Your task to perform on an android device: turn off notifications settings in the gmail app Image 0: 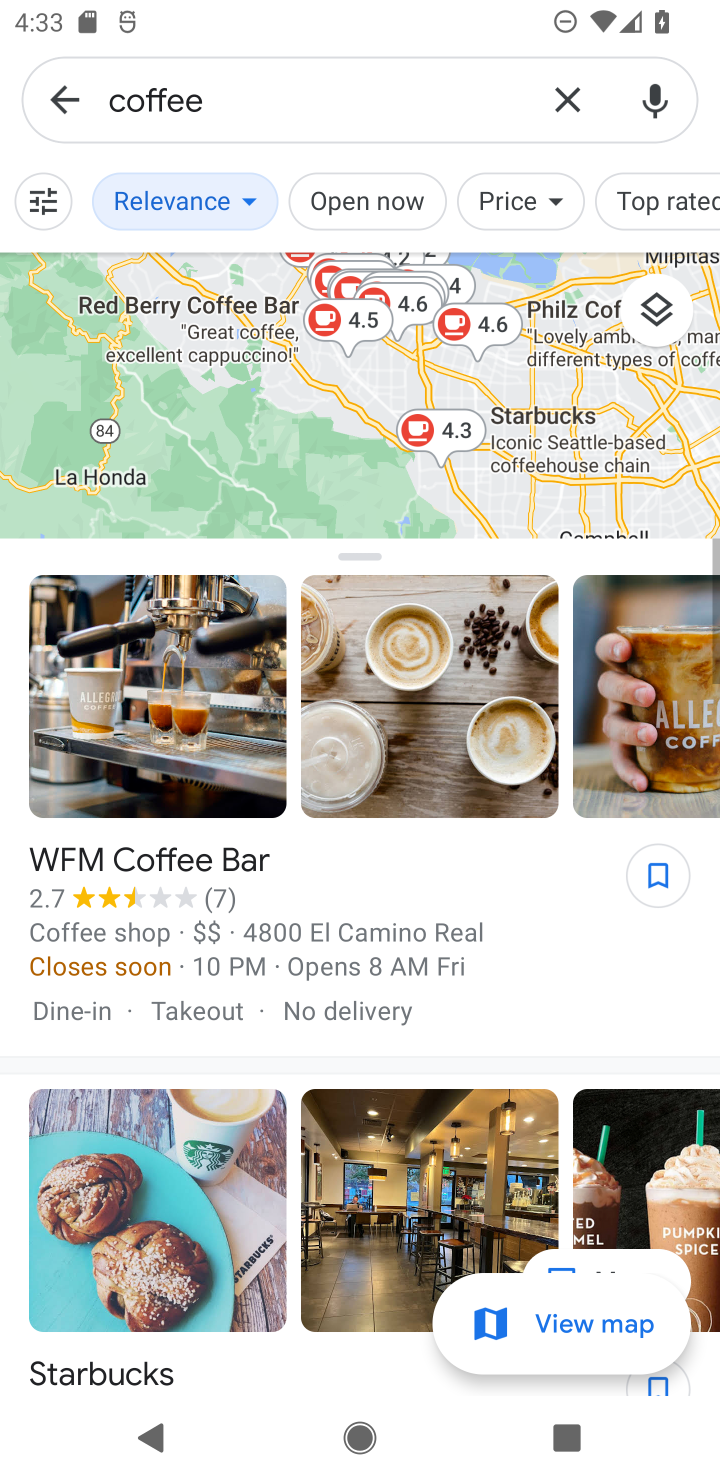
Step 0: press home button
Your task to perform on an android device: turn off notifications settings in the gmail app Image 1: 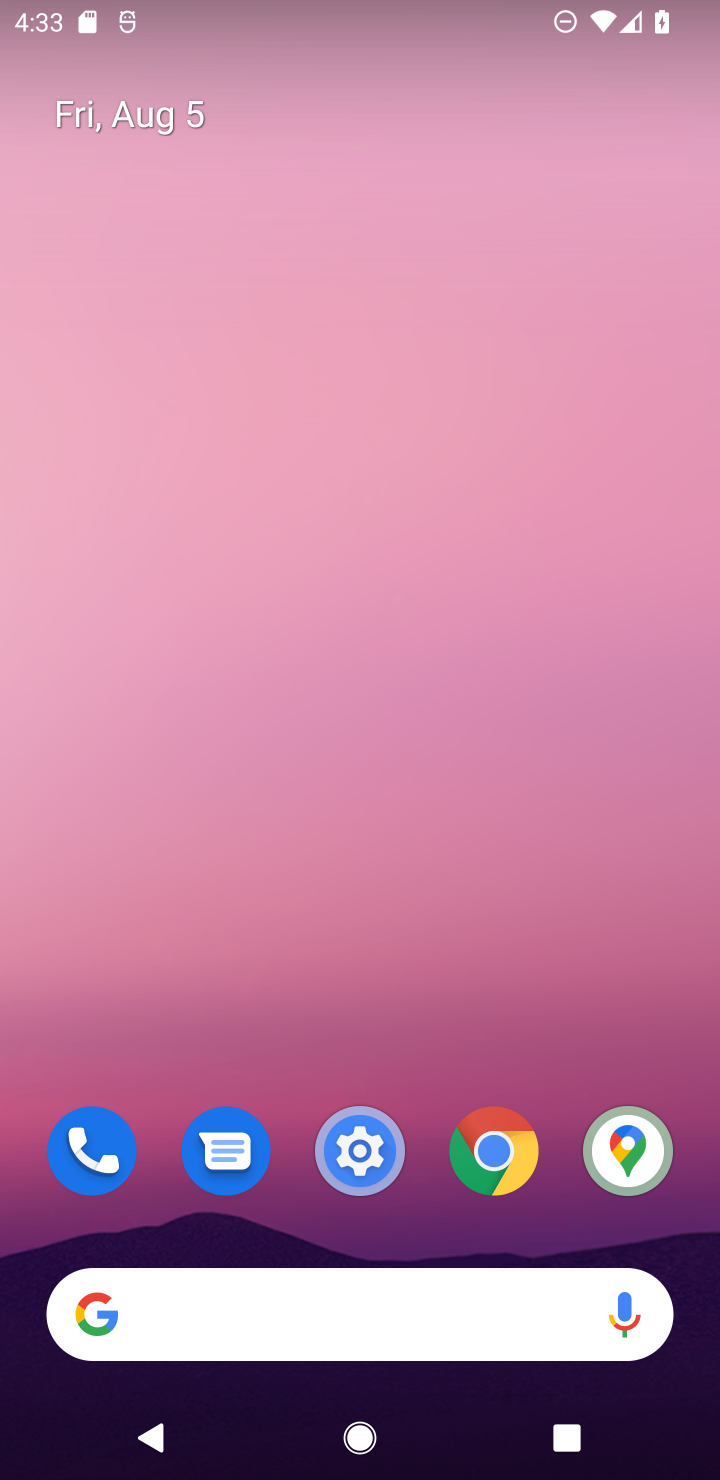
Step 1: drag from (376, 1230) to (321, 281)
Your task to perform on an android device: turn off notifications settings in the gmail app Image 2: 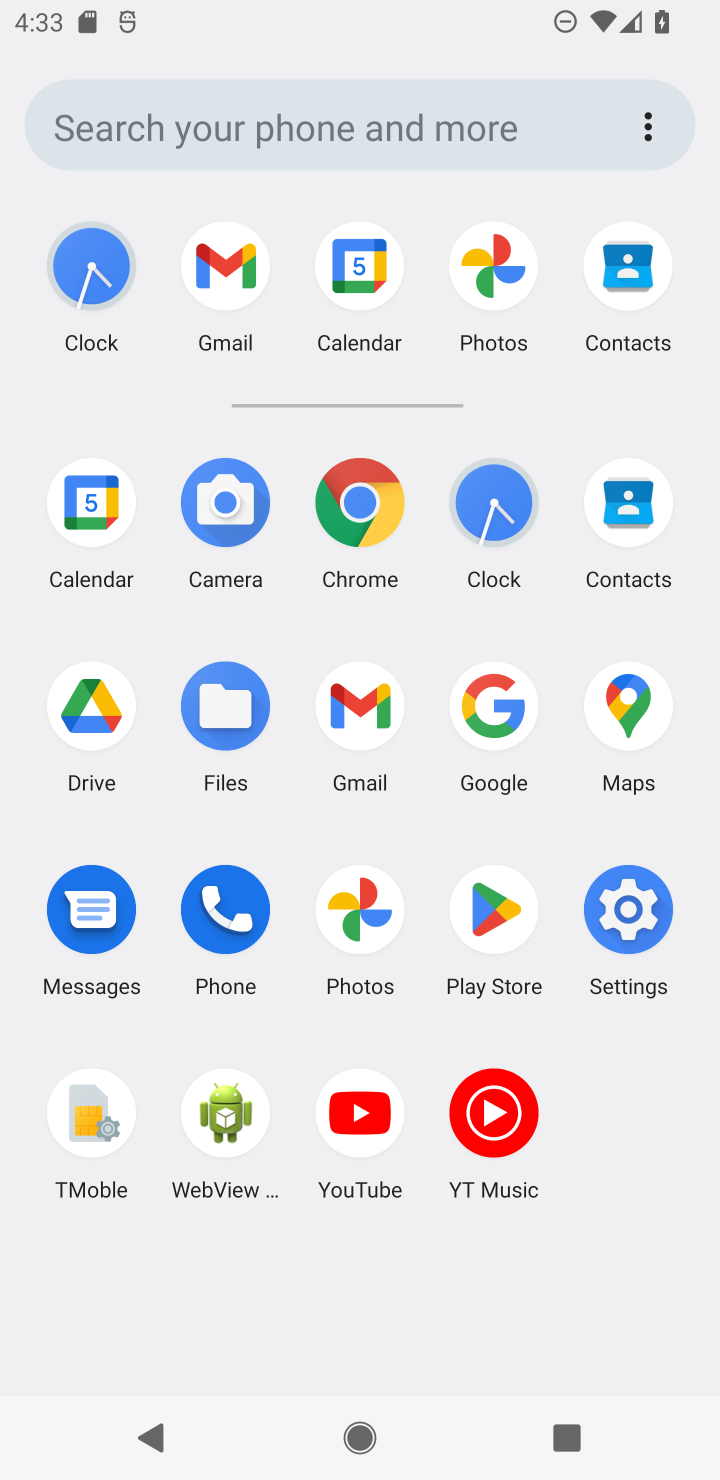
Step 2: click (230, 267)
Your task to perform on an android device: turn off notifications settings in the gmail app Image 3: 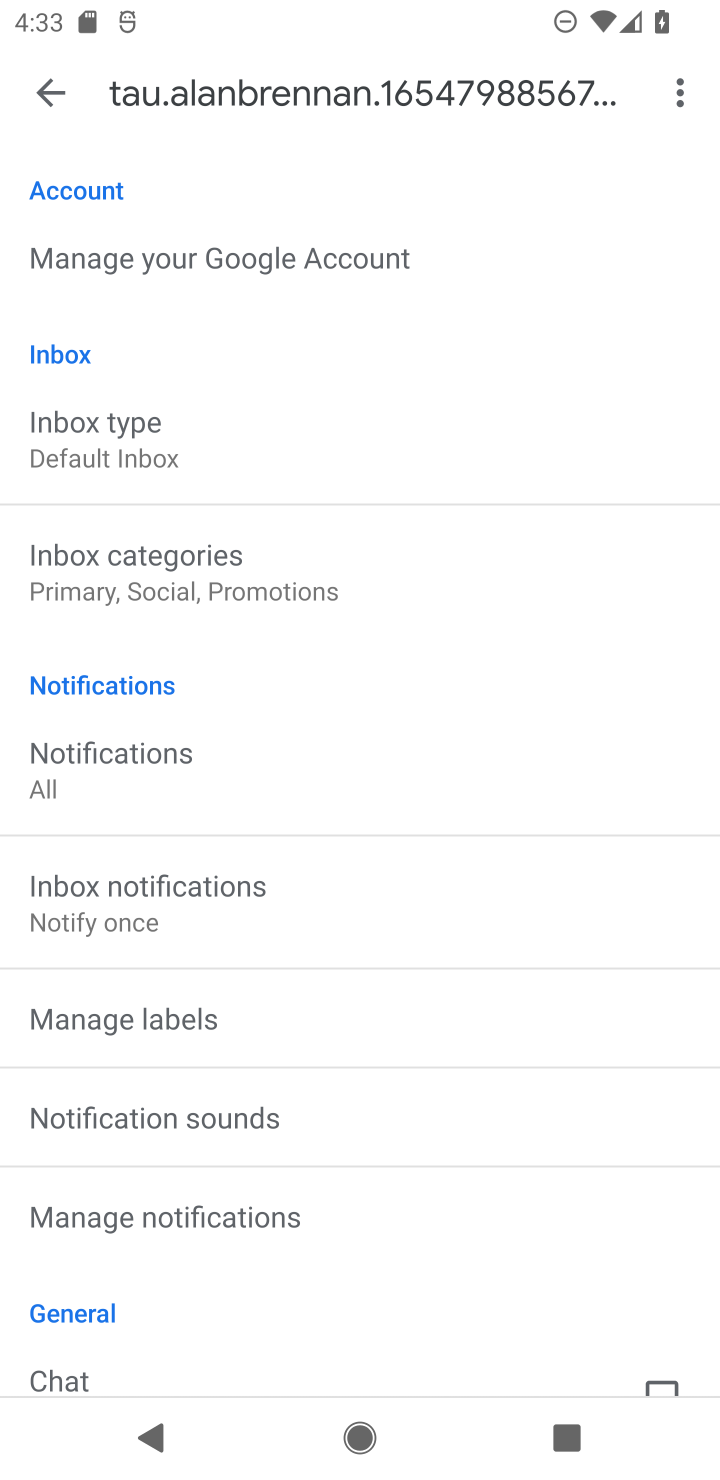
Step 3: click (255, 1216)
Your task to perform on an android device: turn off notifications settings in the gmail app Image 4: 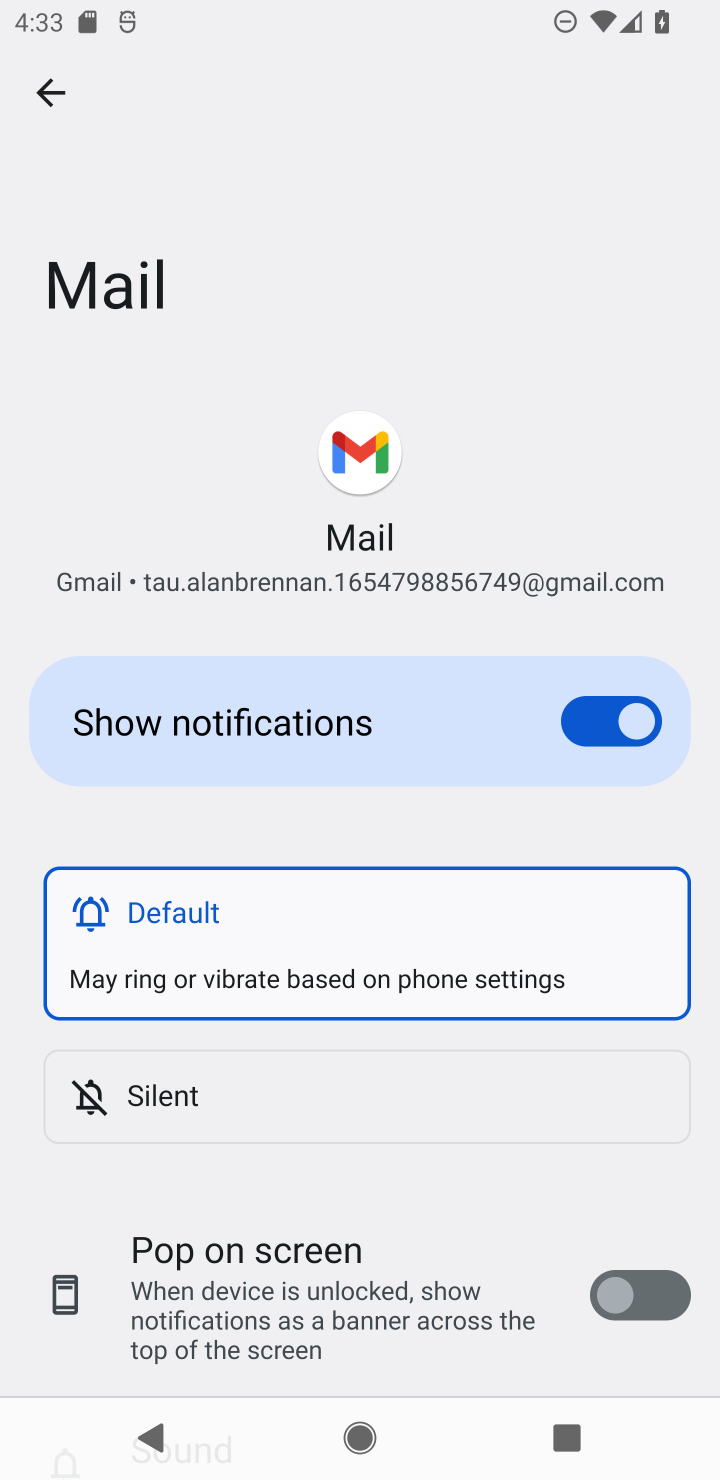
Step 4: click (589, 734)
Your task to perform on an android device: turn off notifications settings in the gmail app Image 5: 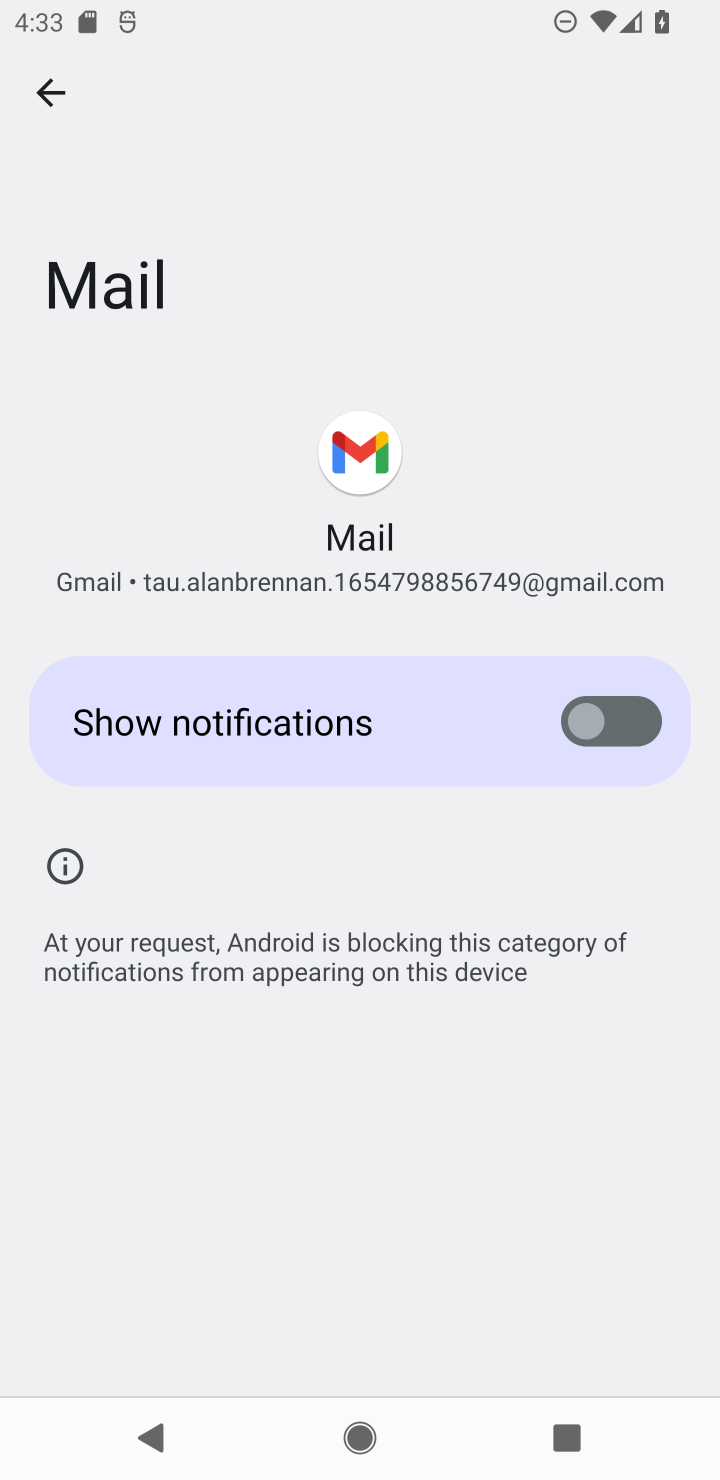
Step 5: task complete